Your task to perform on an android device: change the clock display to digital Image 0: 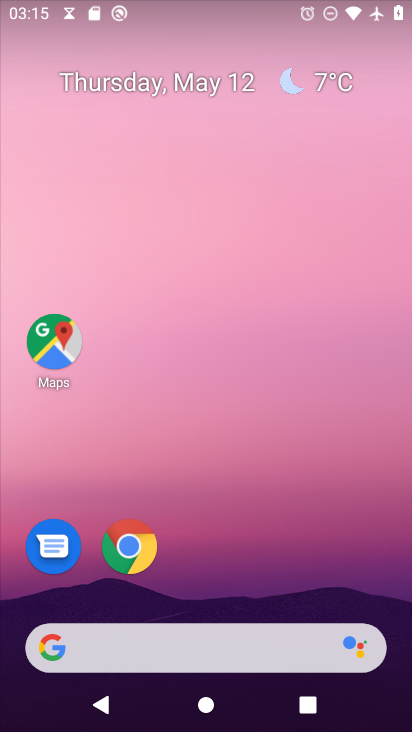
Step 0: drag from (194, 654) to (361, 64)
Your task to perform on an android device: change the clock display to digital Image 1: 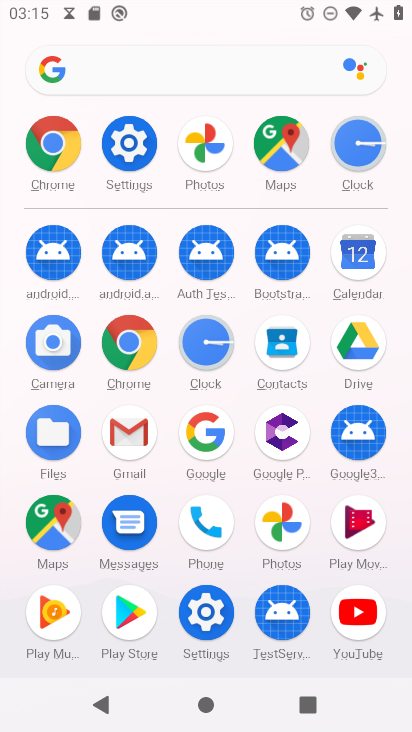
Step 1: click (212, 347)
Your task to perform on an android device: change the clock display to digital Image 2: 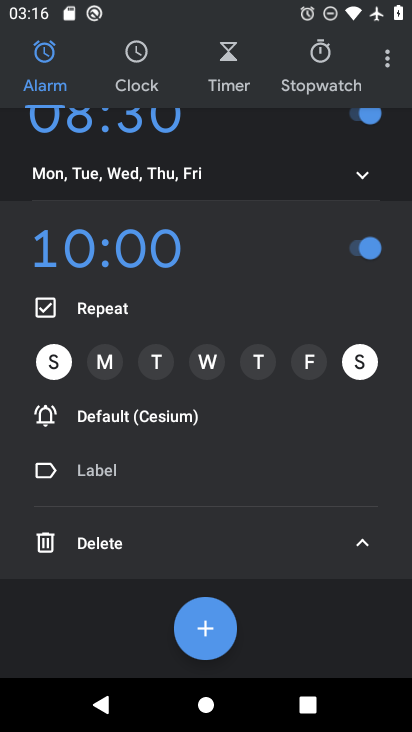
Step 2: click (390, 69)
Your task to perform on an android device: change the clock display to digital Image 3: 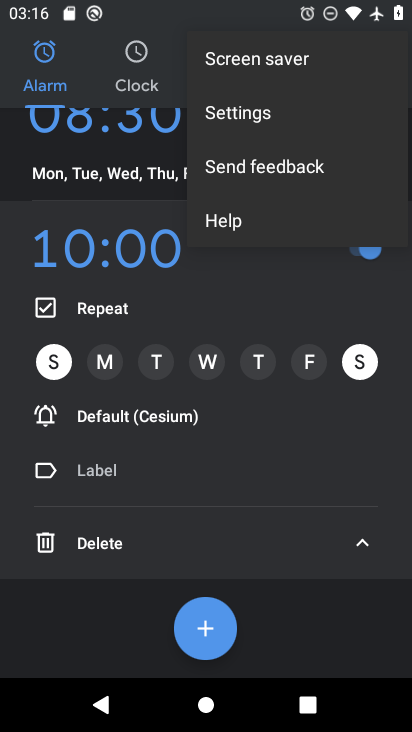
Step 3: click (260, 112)
Your task to perform on an android device: change the clock display to digital Image 4: 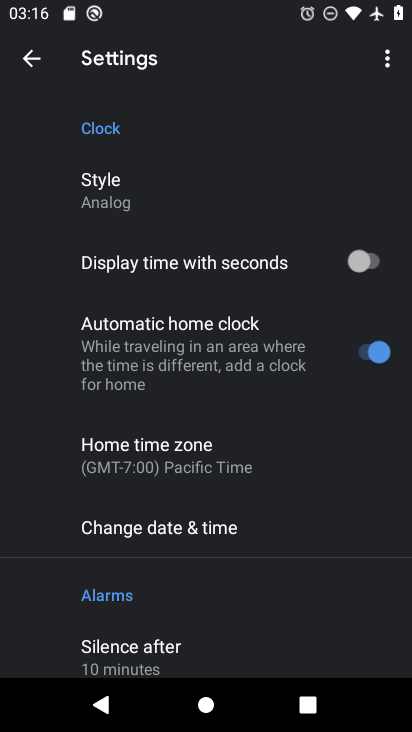
Step 4: click (111, 196)
Your task to perform on an android device: change the clock display to digital Image 5: 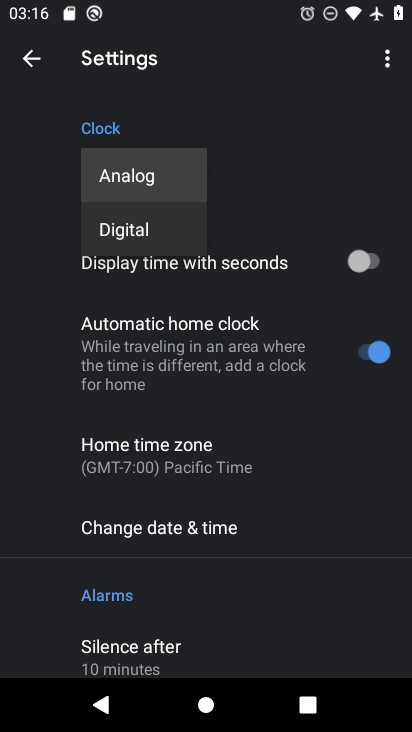
Step 5: click (173, 238)
Your task to perform on an android device: change the clock display to digital Image 6: 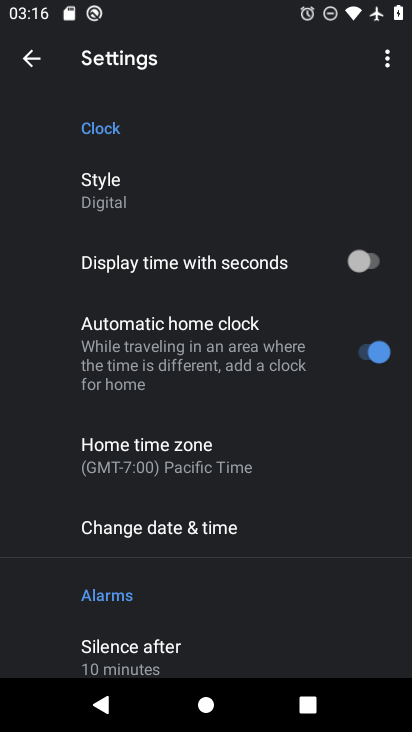
Step 6: task complete